Your task to perform on an android device: Show me popular videos on Youtube Image 0: 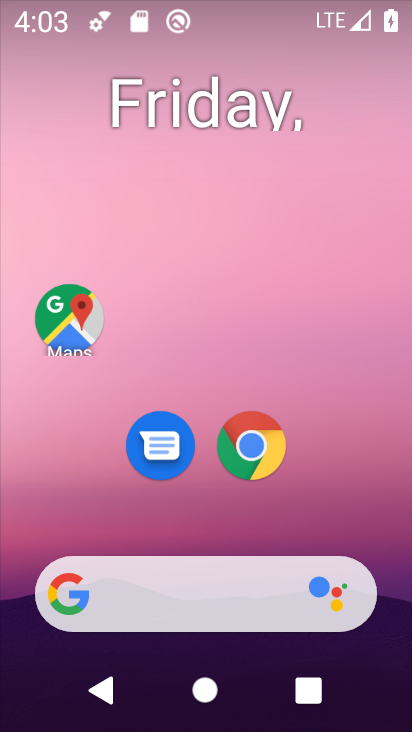
Step 0: drag from (400, 584) to (300, 208)
Your task to perform on an android device: Show me popular videos on Youtube Image 1: 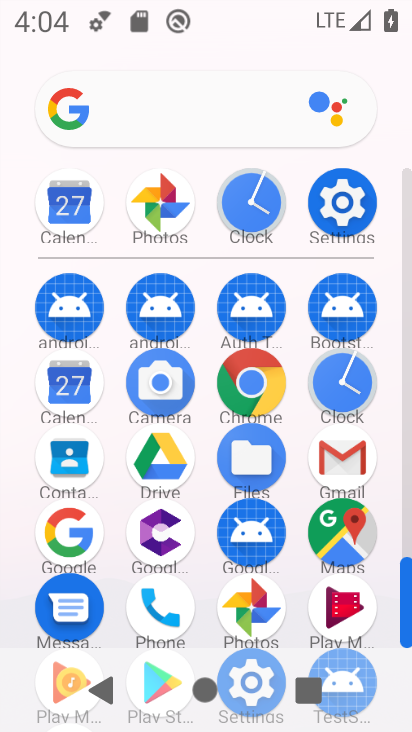
Step 1: drag from (394, 539) to (385, 354)
Your task to perform on an android device: Show me popular videos on Youtube Image 2: 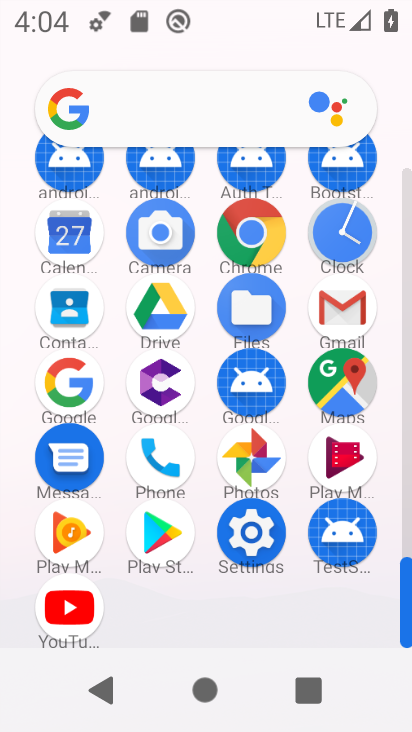
Step 2: click (67, 622)
Your task to perform on an android device: Show me popular videos on Youtube Image 3: 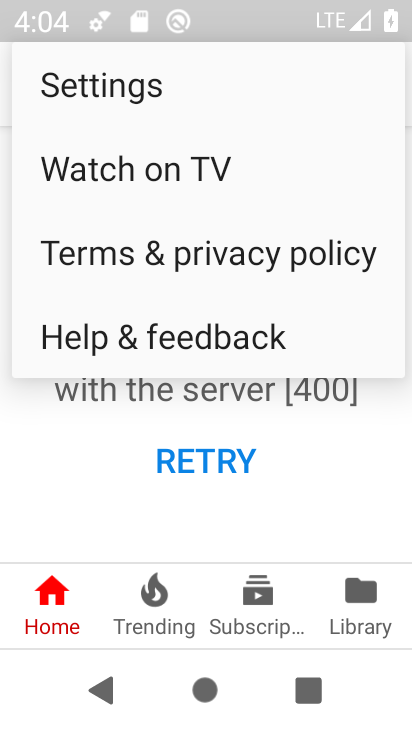
Step 3: click (143, 608)
Your task to perform on an android device: Show me popular videos on Youtube Image 4: 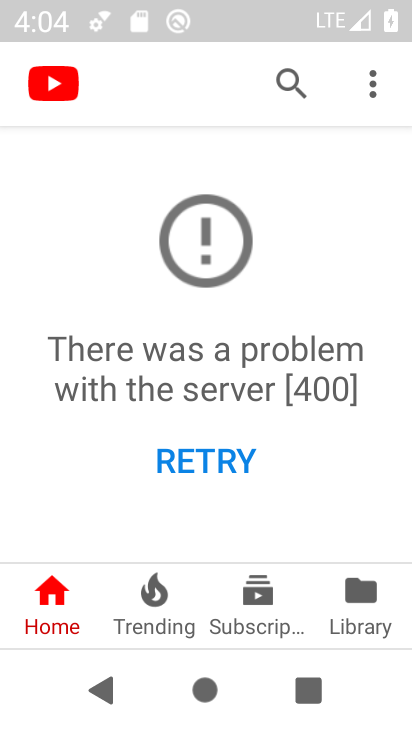
Step 4: click (154, 600)
Your task to perform on an android device: Show me popular videos on Youtube Image 5: 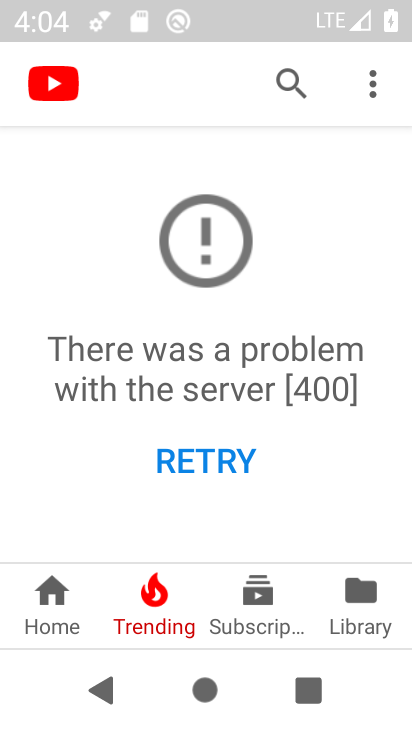
Step 5: task complete